Your task to perform on an android device: turn on showing notifications on the lock screen Image 0: 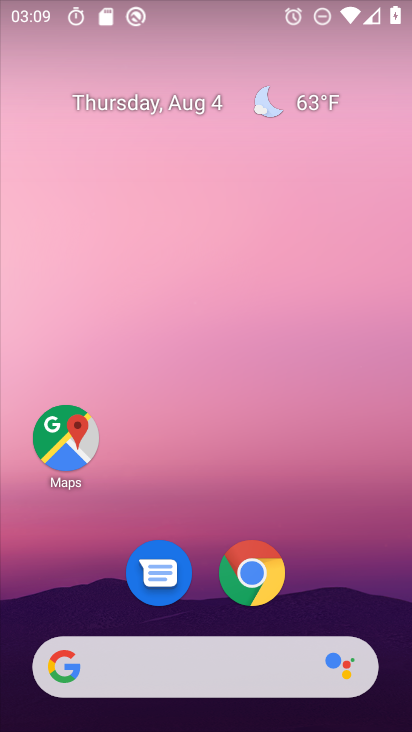
Step 0: drag from (335, 538) to (362, 5)
Your task to perform on an android device: turn on showing notifications on the lock screen Image 1: 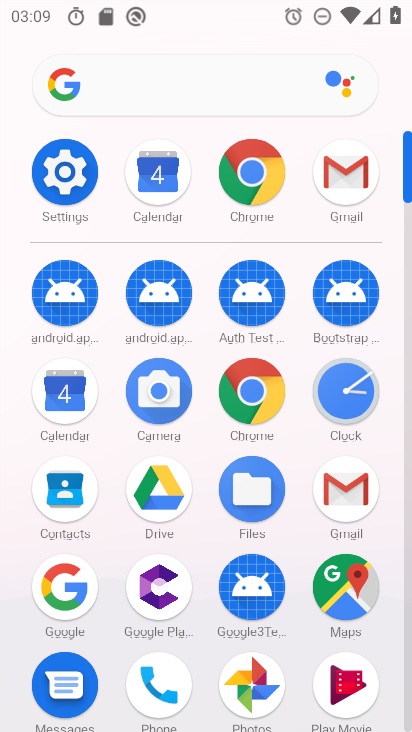
Step 1: click (59, 167)
Your task to perform on an android device: turn on showing notifications on the lock screen Image 2: 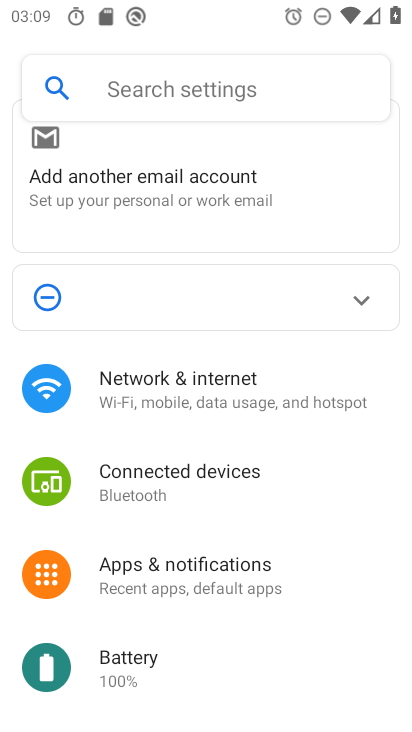
Step 2: click (173, 566)
Your task to perform on an android device: turn on showing notifications on the lock screen Image 3: 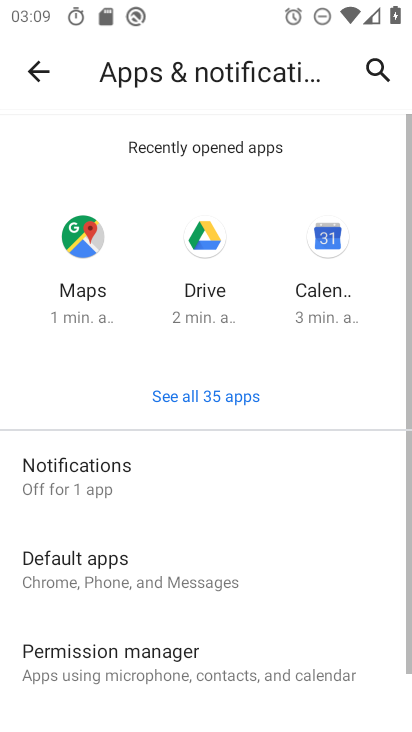
Step 3: click (130, 484)
Your task to perform on an android device: turn on showing notifications on the lock screen Image 4: 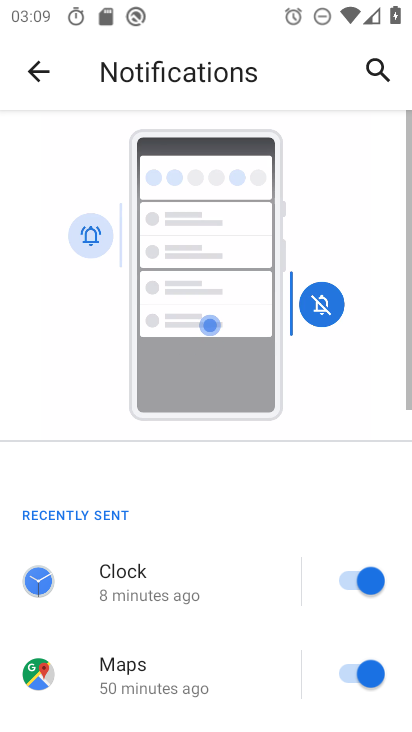
Step 4: drag from (288, 398) to (353, 24)
Your task to perform on an android device: turn on showing notifications on the lock screen Image 5: 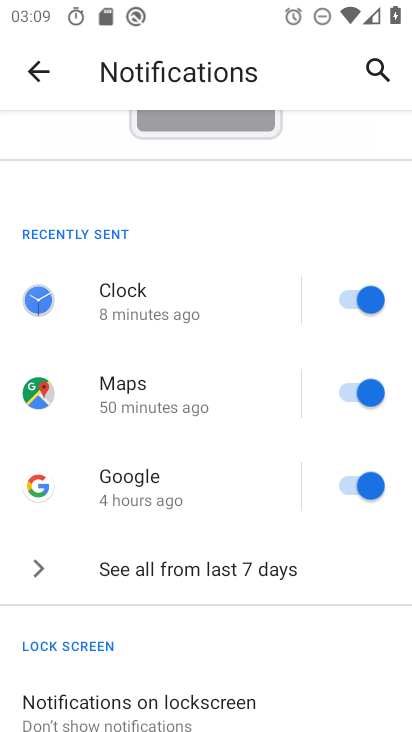
Step 5: click (151, 696)
Your task to perform on an android device: turn on showing notifications on the lock screen Image 6: 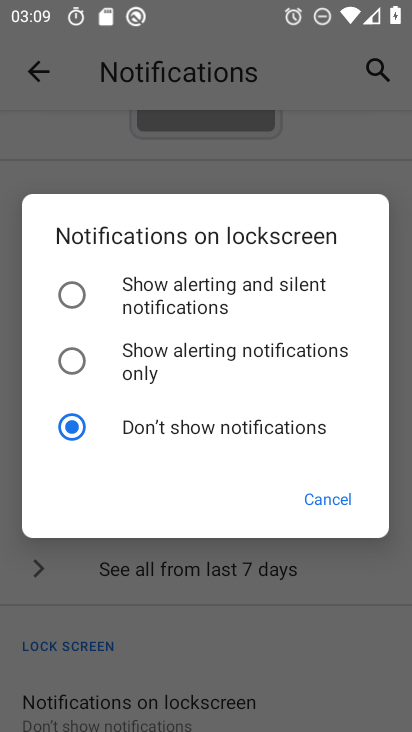
Step 6: click (133, 354)
Your task to perform on an android device: turn on showing notifications on the lock screen Image 7: 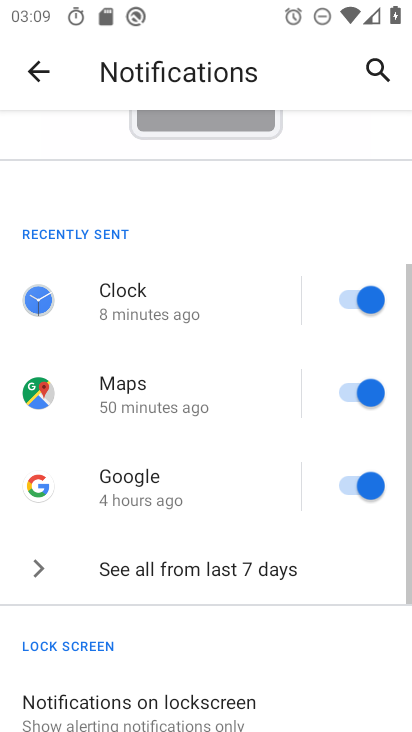
Step 7: task complete